Your task to perform on an android device: turn on notifications settings in the gmail app Image 0: 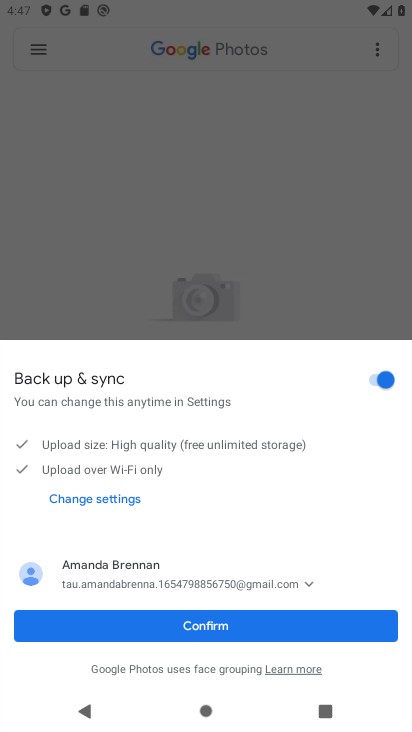
Step 0: press home button
Your task to perform on an android device: turn on notifications settings in the gmail app Image 1: 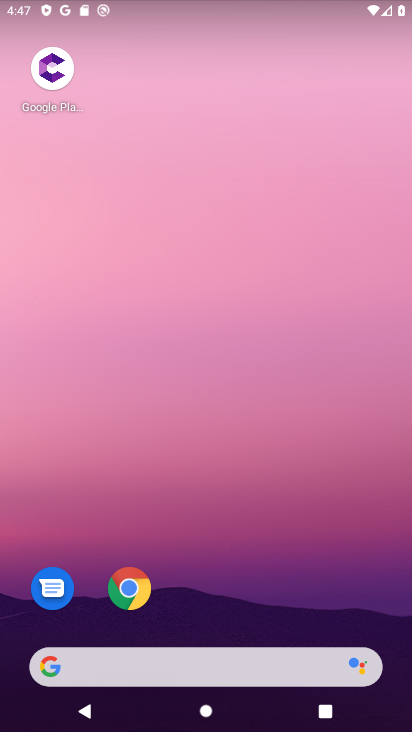
Step 1: drag from (265, 521) to (269, 203)
Your task to perform on an android device: turn on notifications settings in the gmail app Image 2: 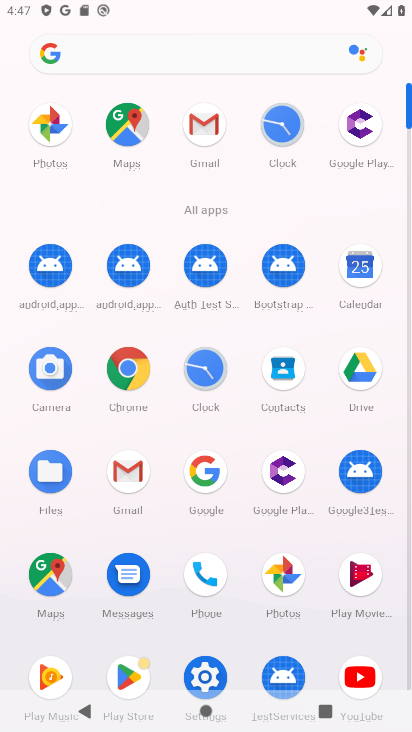
Step 2: click (134, 476)
Your task to perform on an android device: turn on notifications settings in the gmail app Image 3: 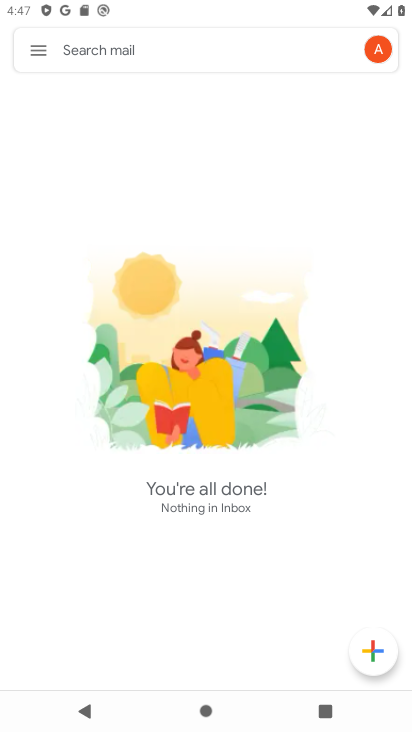
Step 3: click (39, 48)
Your task to perform on an android device: turn on notifications settings in the gmail app Image 4: 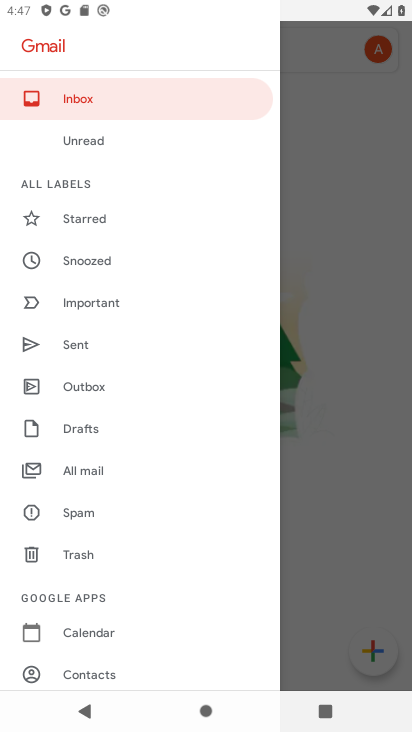
Step 4: drag from (175, 568) to (203, 233)
Your task to perform on an android device: turn on notifications settings in the gmail app Image 5: 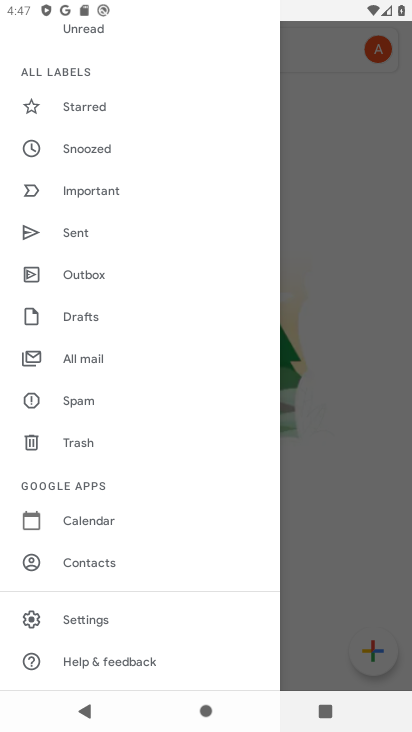
Step 5: click (84, 620)
Your task to perform on an android device: turn on notifications settings in the gmail app Image 6: 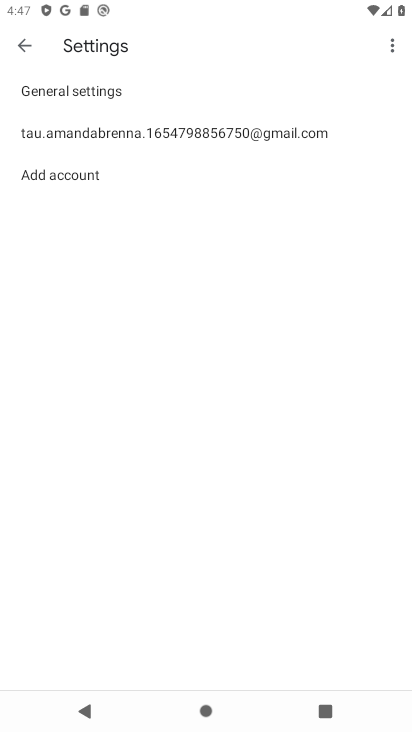
Step 6: task complete